Your task to perform on an android device: clear history in the chrome app Image 0: 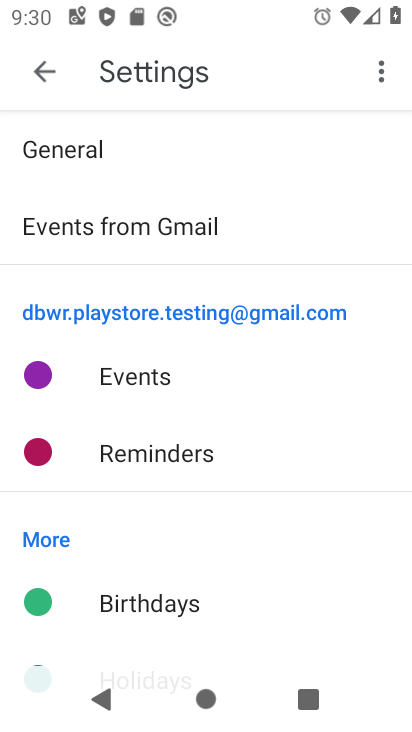
Step 0: press home button
Your task to perform on an android device: clear history in the chrome app Image 1: 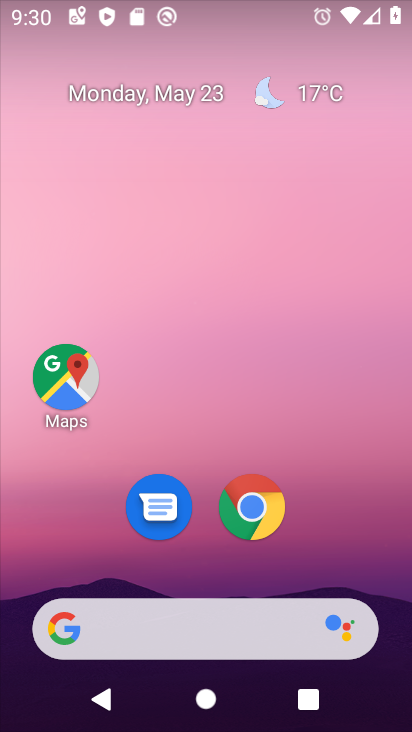
Step 1: click (261, 517)
Your task to perform on an android device: clear history in the chrome app Image 2: 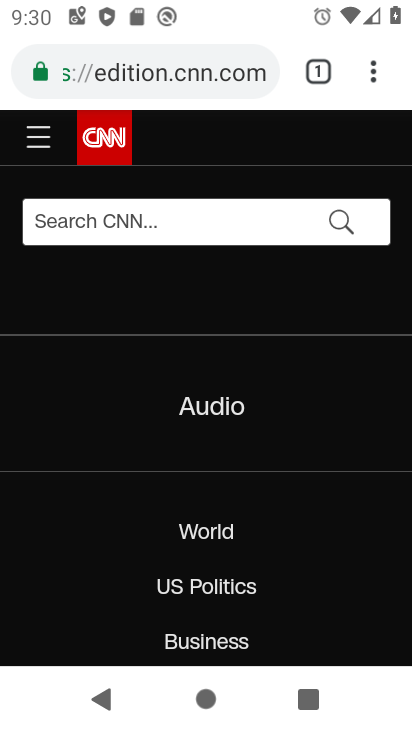
Step 2: click (378, 73)
Your task to perform on an android device: clear history in the chrome app Image 3: 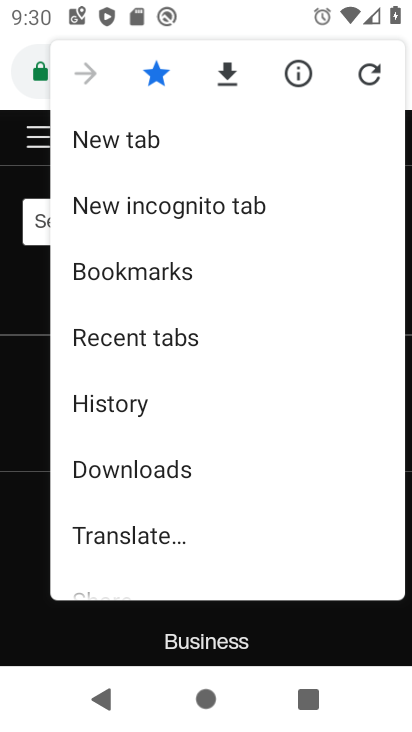
Step 3: click (105, 407)
Your task to perform on an android device: clear history in the chrome app Image 4: 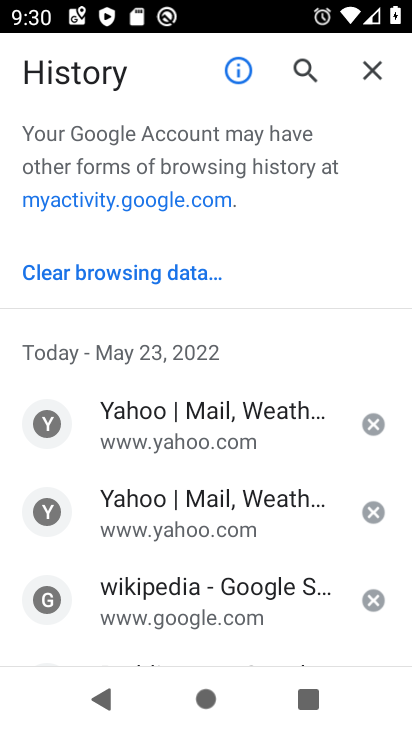
Step 4: click (122, 268)
Your task to perform on an android device: clear history in the chrome app Image 5: 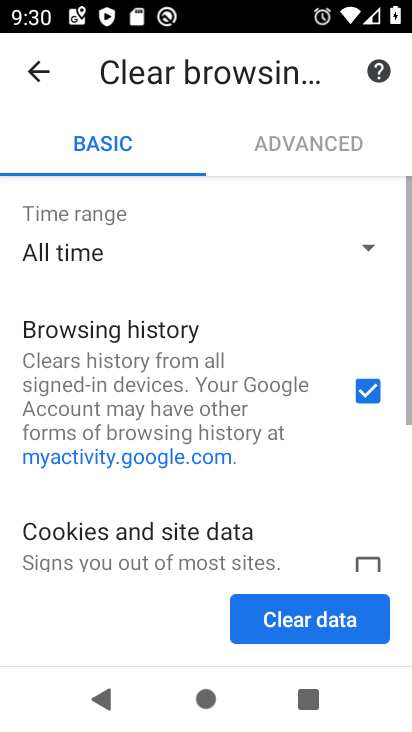
Step 5: drag from (178, 332) to (176, 198)
Your task to perform on an android device: clear history in the chrome app Image 6: 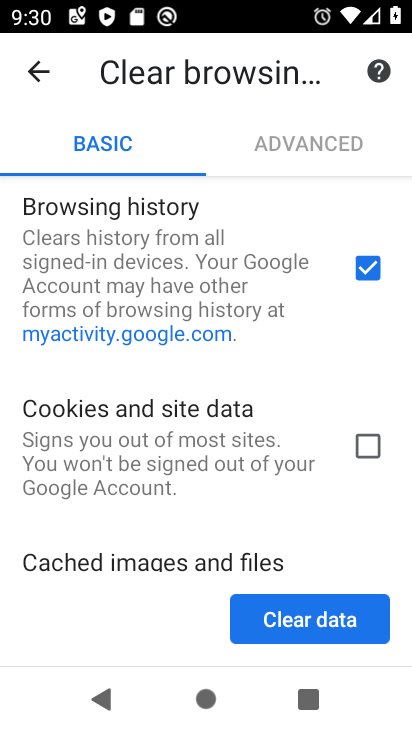
Step 6: drag from (197, 415) to (196, 232)
Your task to perform on an android device: clear history in the chrome app Image 7: 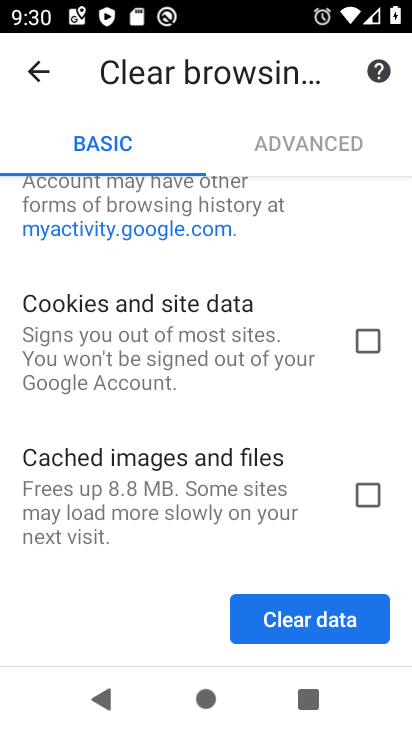
Step 7: click (317, 618)
Your task to perform on an android device: clear history in the chrome app Image 8: 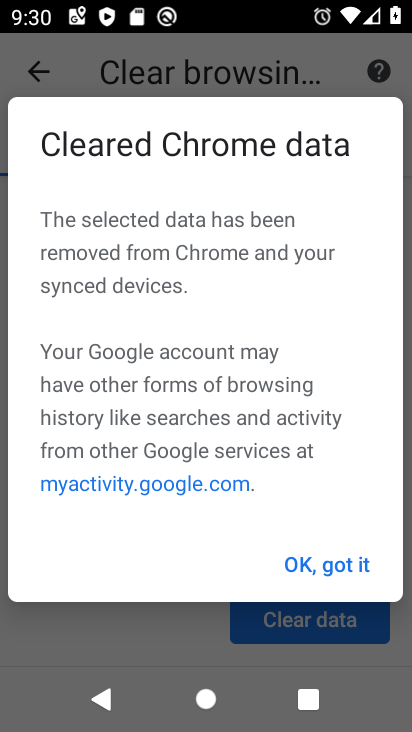
Step 8: click (322, 564)
Your task to perform on an android device: clear history in the chrome app Image 9: 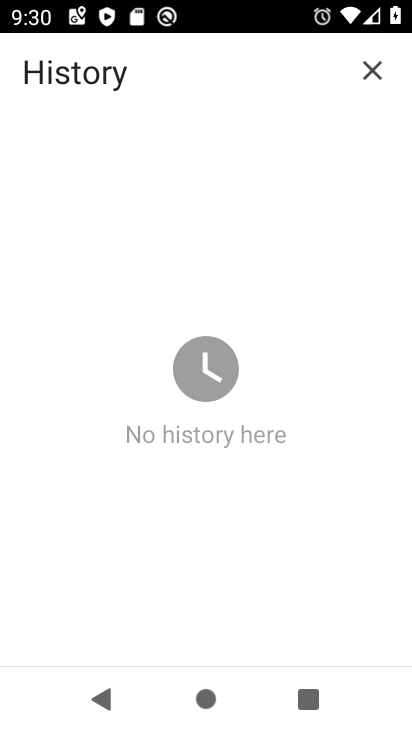
Step 9: task complete